Your task to perform on an android device: change timer sound Image 0: 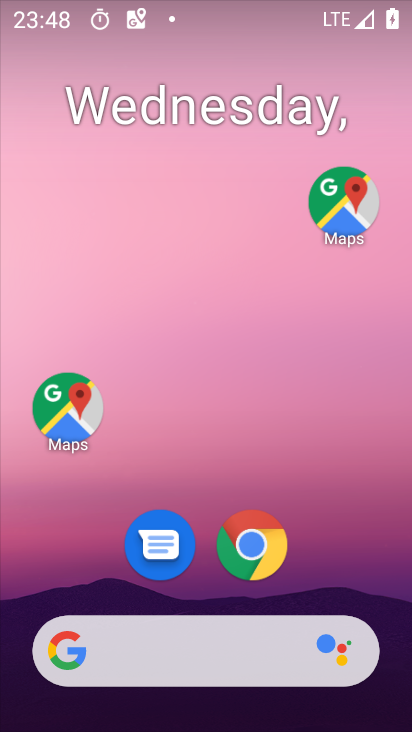
Step 0: drag from (344, 578) to (335, 66)
Your task to perform on an android device: change timer sound Image 1: 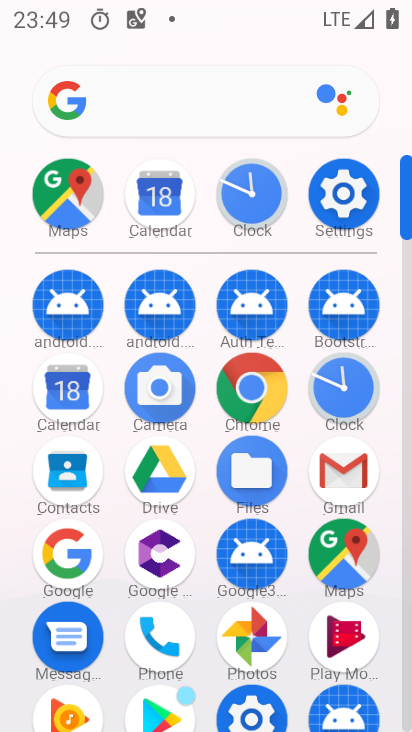
Step 1: click (327, 389)
Your task to perform on an android device: change timer sound Image 2: 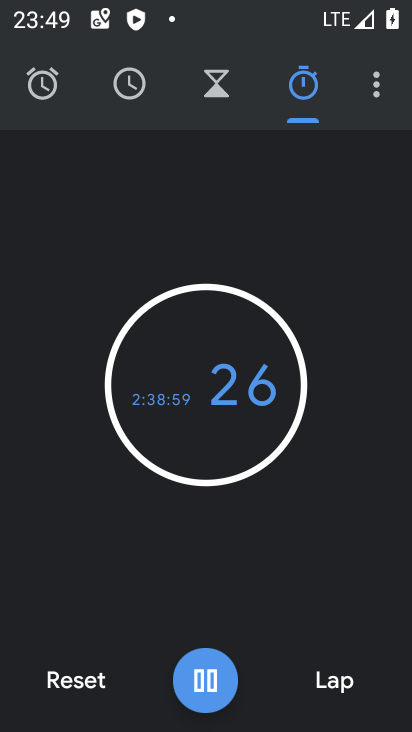
Step 2: click (379, 93)
Your task to perform on an android device: change timer sound Image 3: 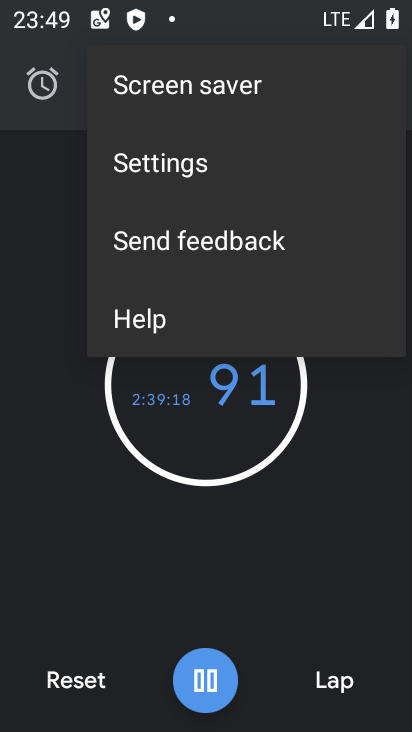
Step 3: click (268, 177)
Your task to perform on an android device: change timer sound Image 4: 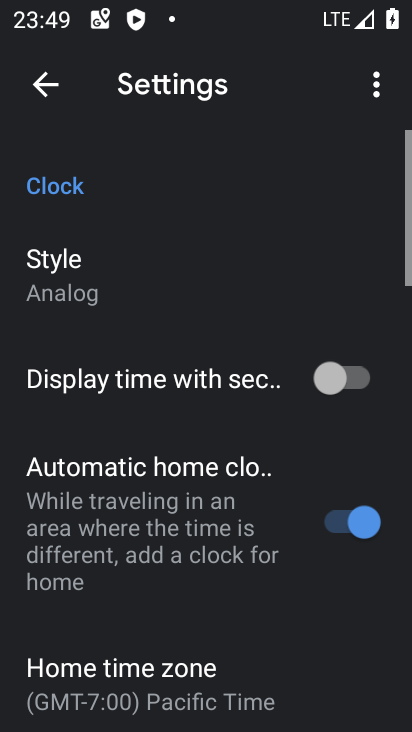
Step 4: drag from (188, 589) to (163, 179)
Your task to perform on an android device: change timer sound Image 5: 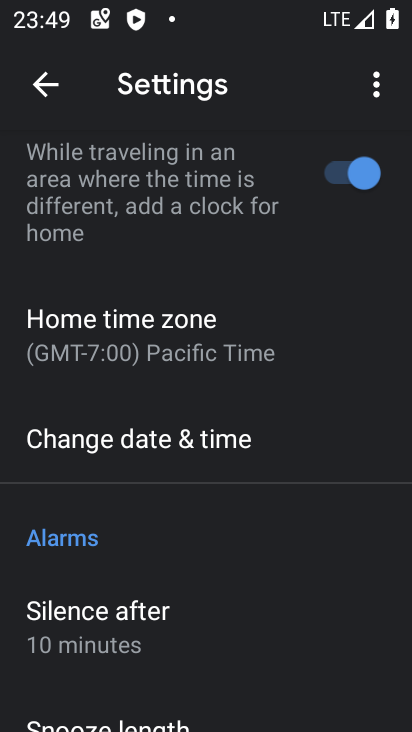
Step 5: drag from (155, 620) to (110, 297)
Your task to perform on an android device: change timer sound Image 6: 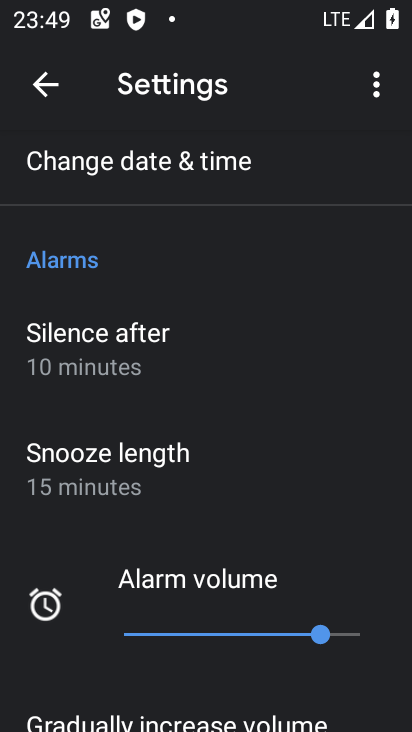
Step 6: drag from (183, 558) to (186, 257)
Your task to perform on an android device: change timer sound Image 7: 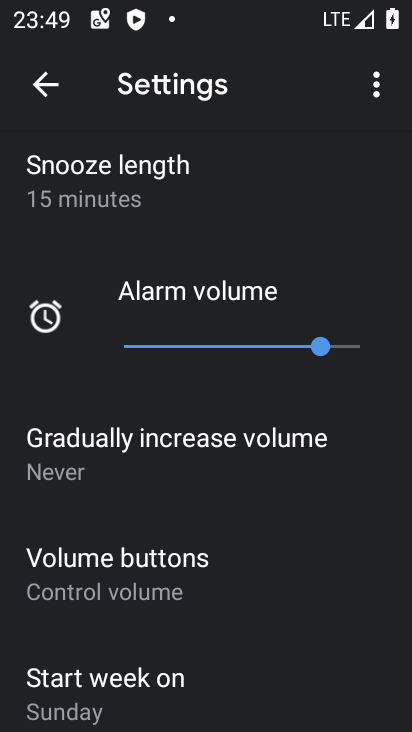
Step 7: drag from (189, 526) to (198, 306)
Your task to perform on an android device: change timer sound Image 8: 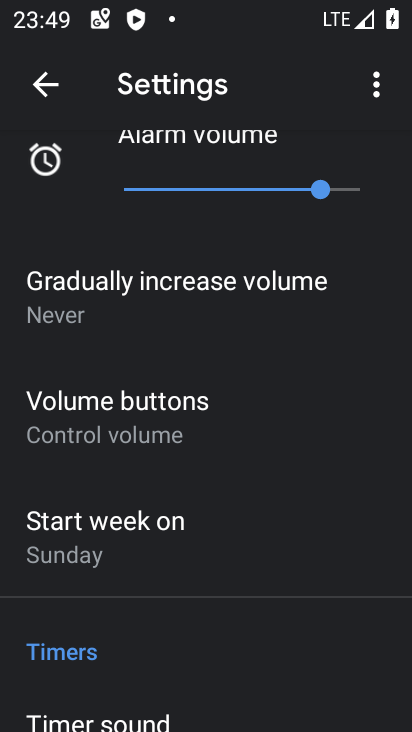
Step 8: drag from (219, 565) to (218, 330)
Your task to perform on an android device: change timer sound Image 9: 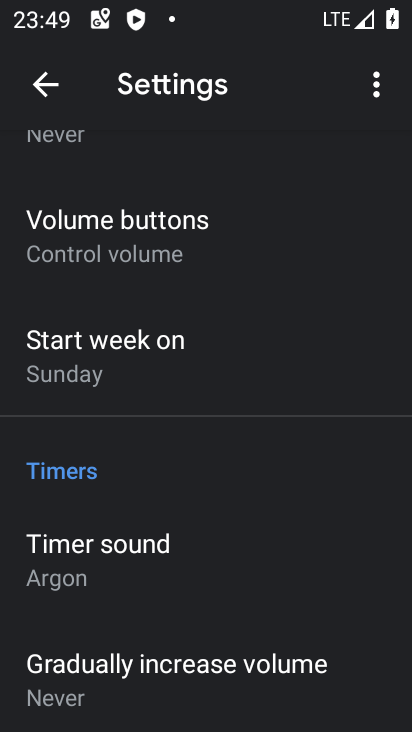
Step 9: click (189, 548)
Your task to perform on an android device: change timer sound Image 10: 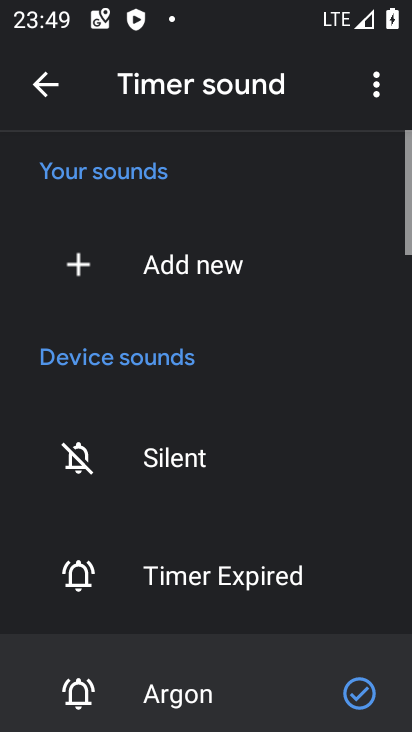
Step 10: drag from (202, 601) to (195, 355)
Your task to perform on an android device: change timer sound Image 11: 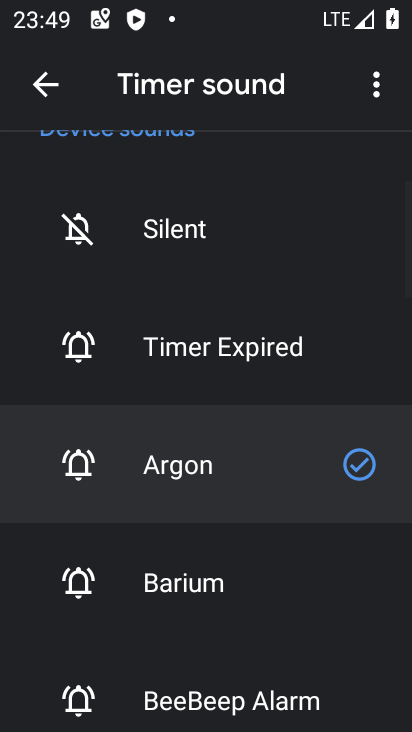
Step 11: click (209, 557)
Your task to perform on an android device: change timer sound Image 12: 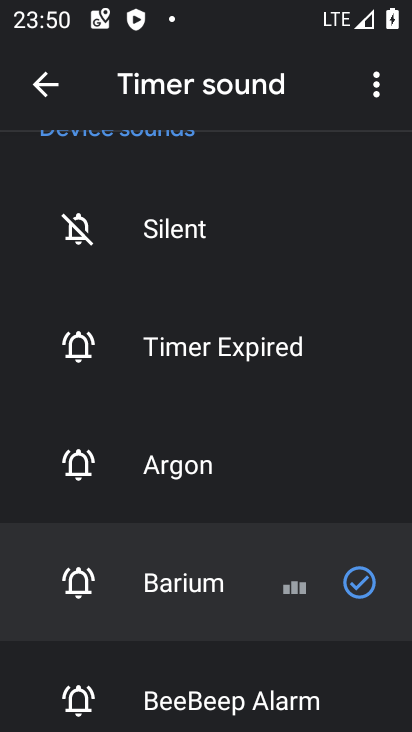
Step 12: task complete